Your task to perform on an android device: Show me popular videos on Youtube Image 0: 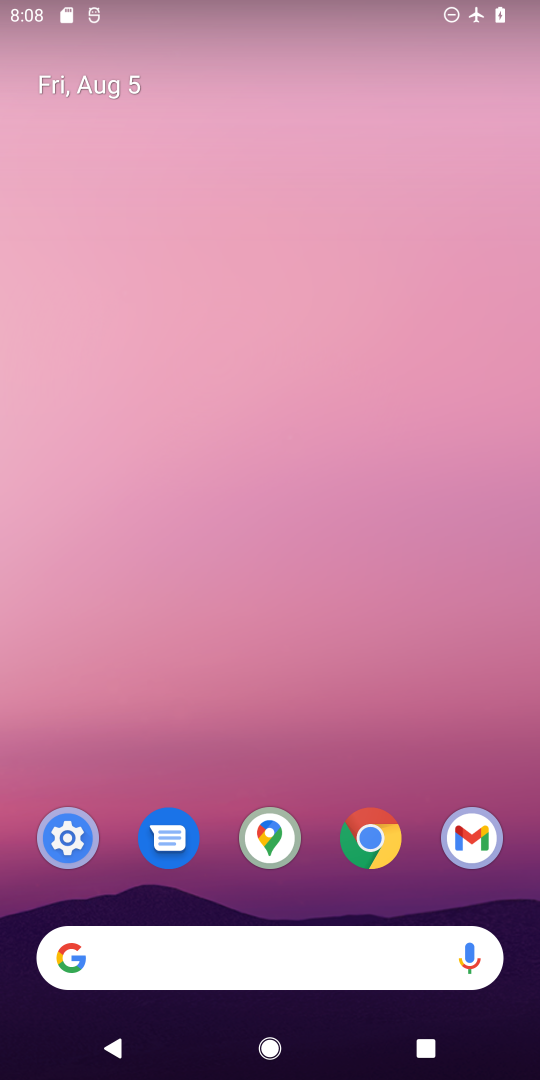
Step 0: drag from (278, 867) to (288, 455)
Your task to perform on an android device: Show me popular videos on Youtube Image 1: 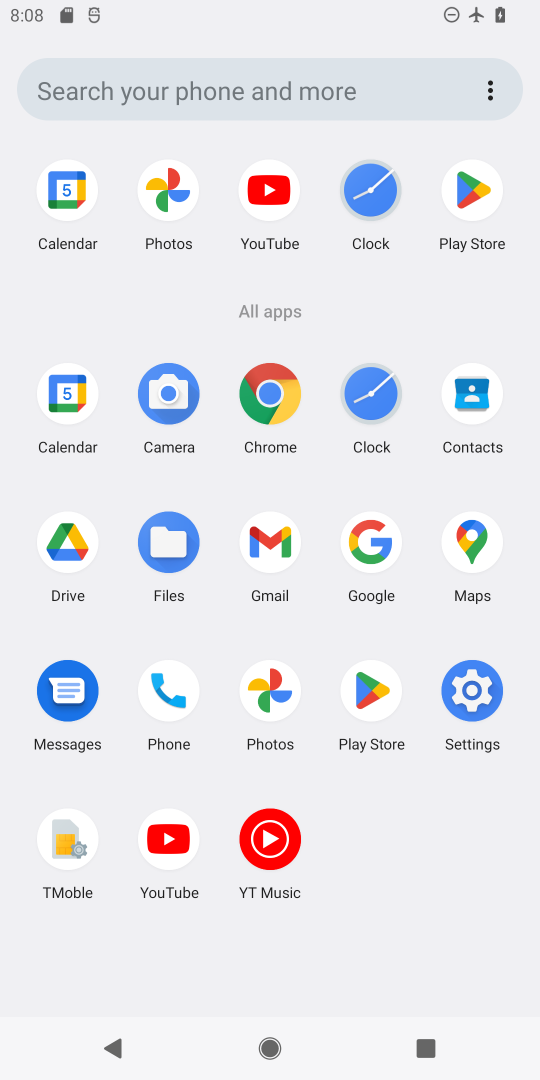
Step 1: click (169, 843)
Your task to perform on an android device: Show me popular videos on Youtube Image 2: 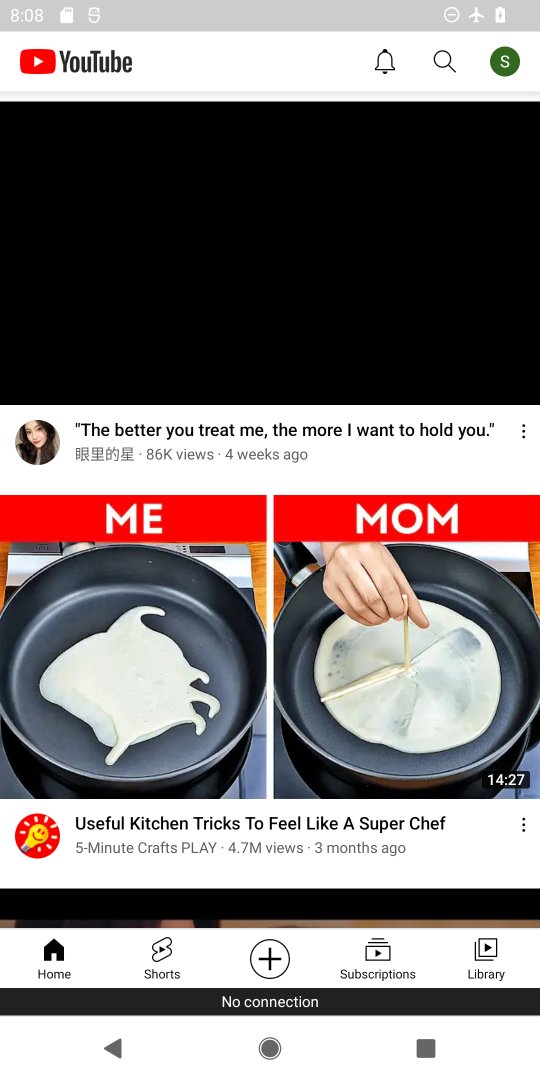
Step 2: task complete